Your task to perform on an android device: move an email to a new category in the gmail app Image 0: 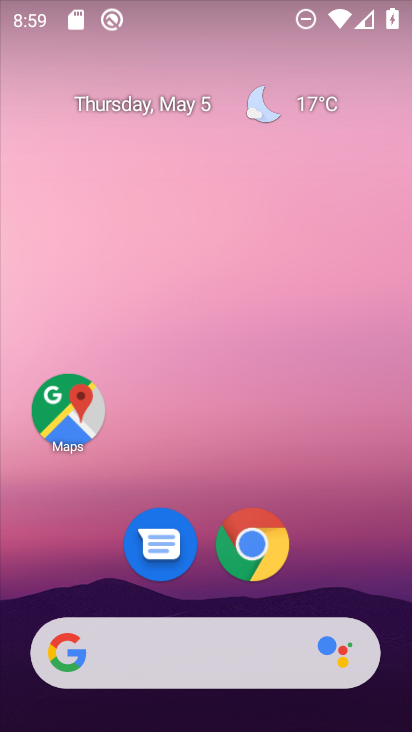
Step 0: drag from (394, 622) to (307, 24)
Your task to perform on an android device: move an email to a new category in the gmail app Image 1: 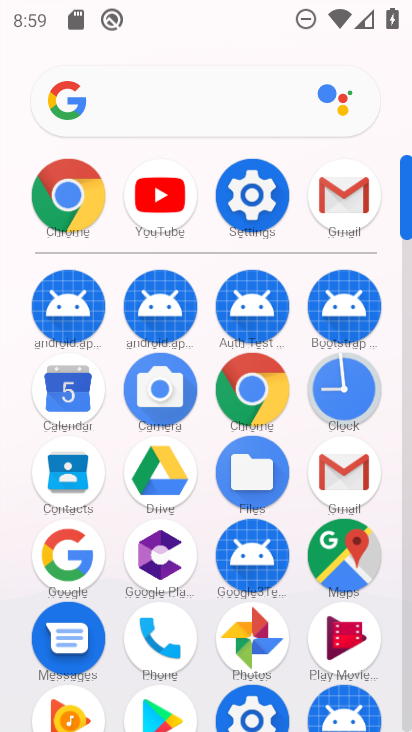
Step 1: click (331, 470)
Your task to perform on an android device: move an email to a new category in the gmail app Image 2: 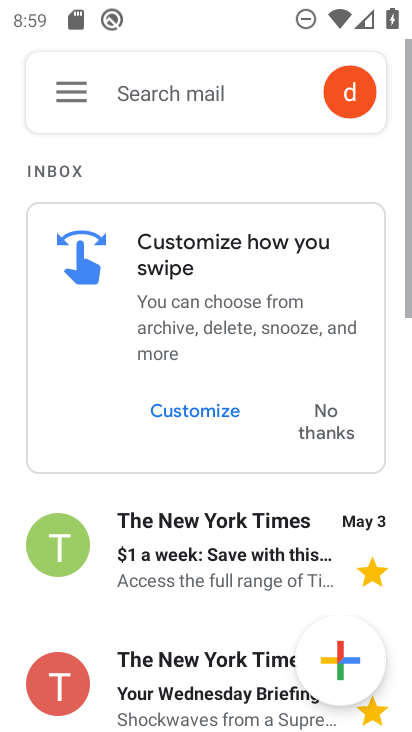
Step 2: click (238, 537)
Your task to perform on an android device: move an email to a new category in the gmail app Image 3: 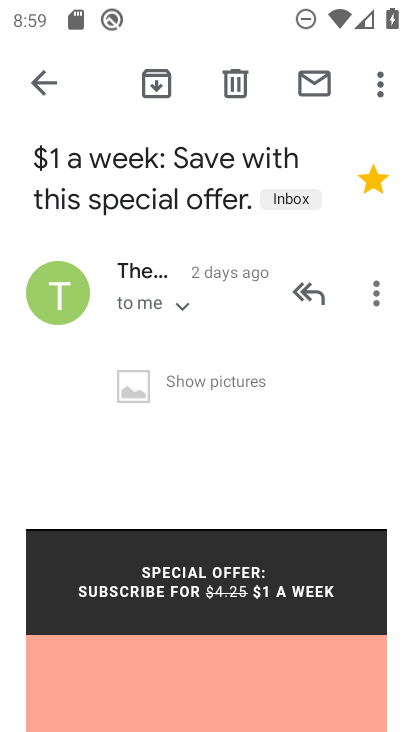
Step 3: click (376, 79)
Your task to perform on an android device: move an email to a new category in the gmail app Image 4: 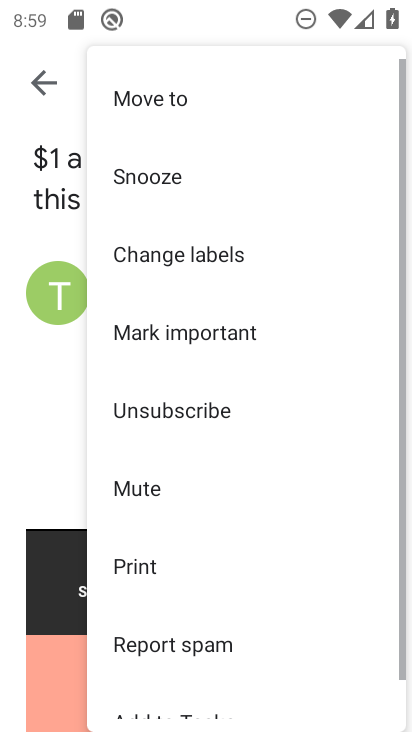
Step 4: click (256, 106)
Your task to perform on an android device: move an email to a new category in the gmail app Image 5: 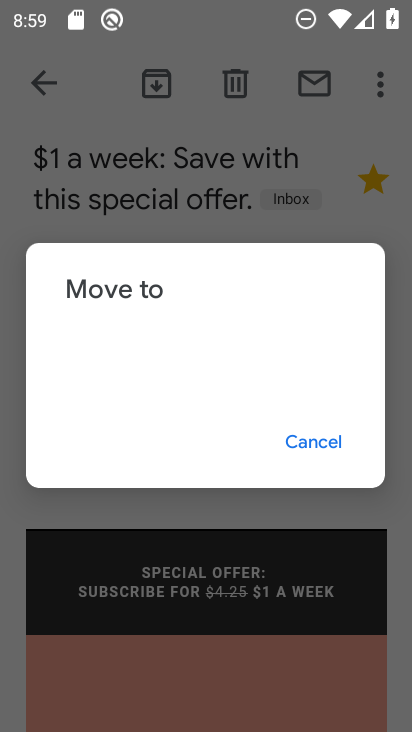
Step 5: task complete